Your task to perform on an android device: open device folders in google photos Image 0: 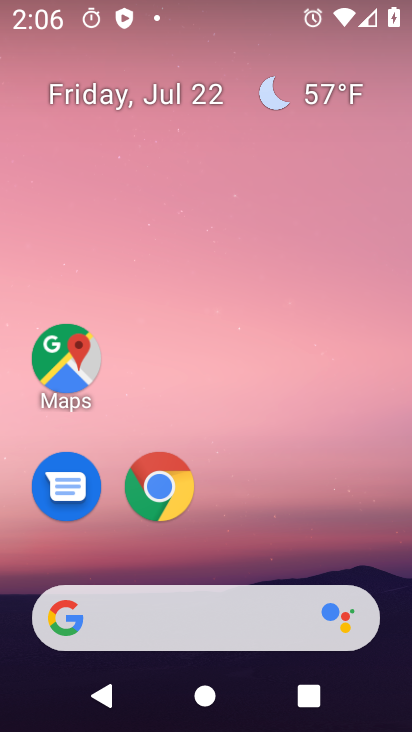
Step 0: press home button
Your task to perform on an android device: open device folders in google photos Image 1: 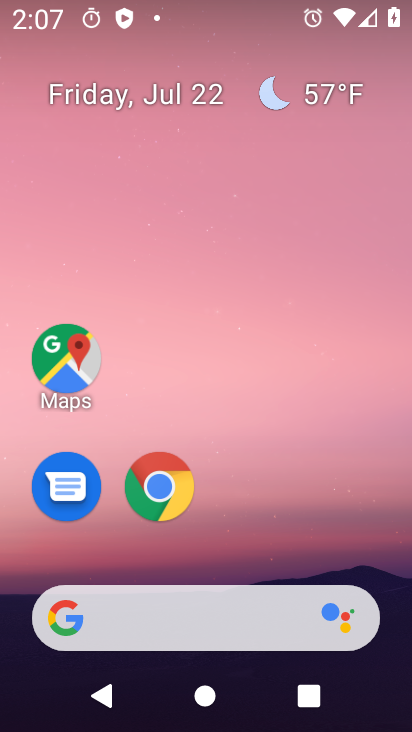
Step 1: drag from (357, 526) to (341, 154)
Your task to perform on an android device: open device folders in google photos Image 2: 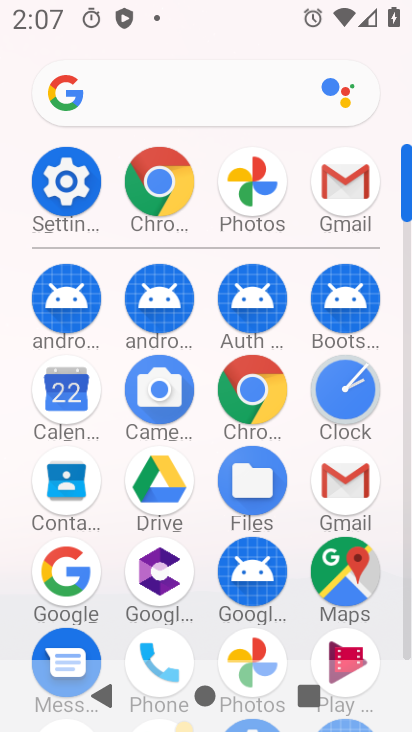
Step 2: click (258, 191)
Your task to perform on an android device: open device folders in google photos Image 3: 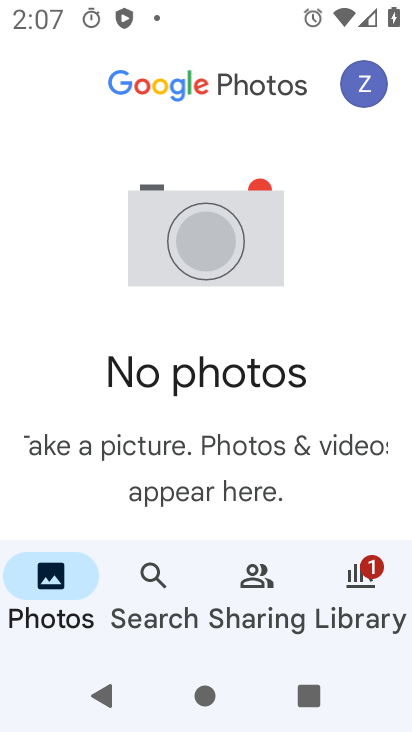
Step 3: click (357, 95)
Your task to perform on an android device: open device folders in google photos Image 4: 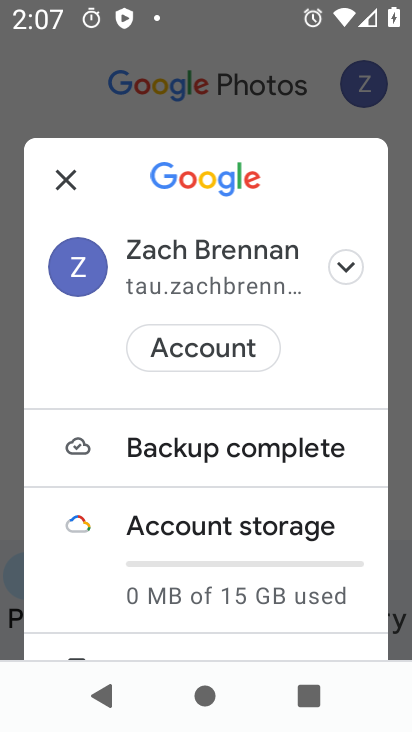
Step 4: task complete